Your task to perform on an android device: see sites visited before in the chrome app Image 0: 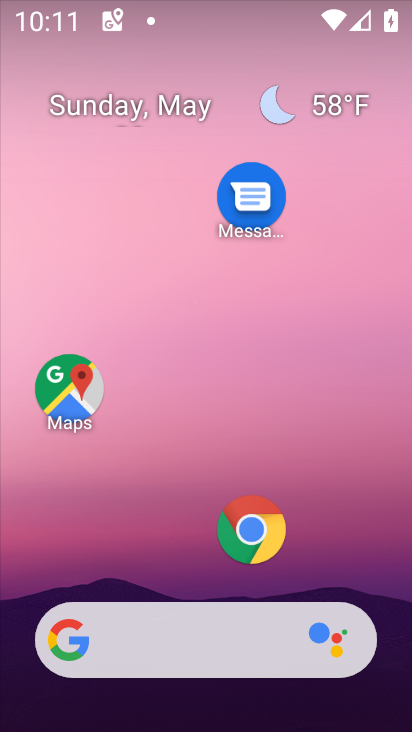
Step 0: click (263, 536)
Your task to perform on an android device: see sites visited before in the chrome app Image 1: 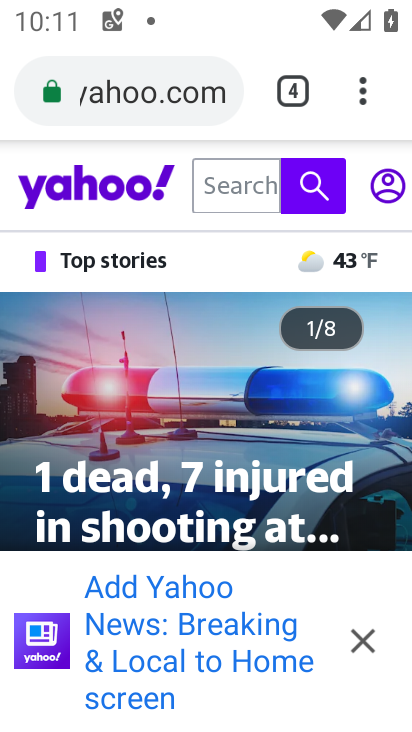
Step 1: click (371, 90)
Your task to perform on an android device: see sites visited before in the chrome app Image 2: 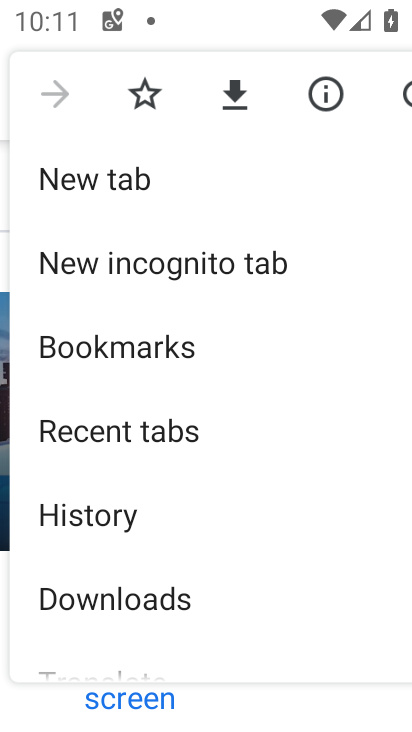
Step 2: click (119, 523)
Your task to perform on an android device: see sites visited before in the chrome app Image 3: 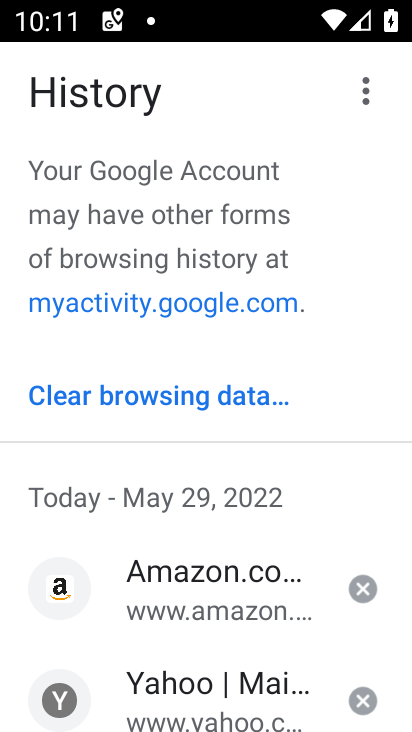
Step 3: task complete